Your task to perform on an android device: open the mobile data screen to see how much data has been used Image 0: 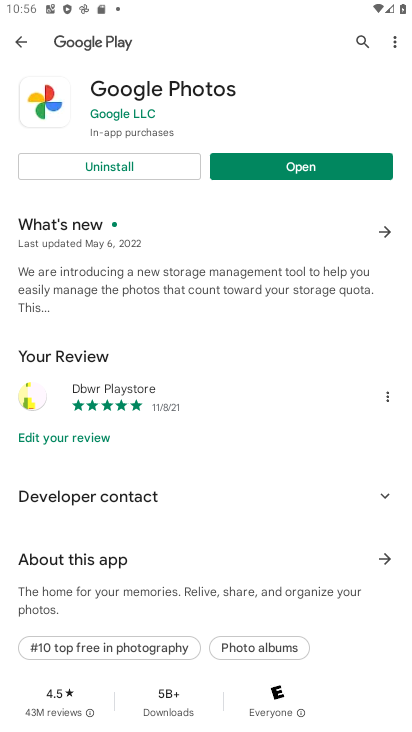
Step 0: press home button
Your task to perform on an android device: open the mobile data screen to see how much data has been used Image 1: 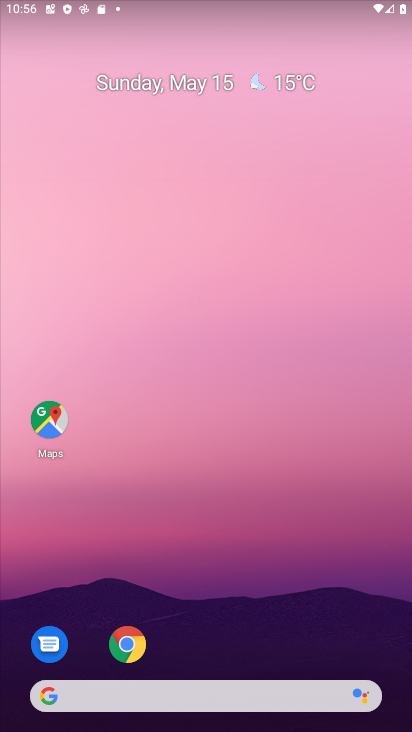
Step 1: drag from (189, 322) to (195, 288)
Your task to perform on an android device: open the mobile data screen to see how much data has been used Image 2: 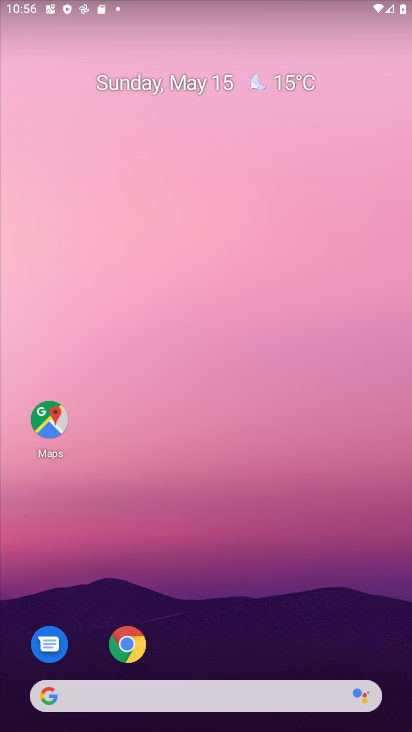
Step 2: drag from (268, 679) to (325, 241)
Your task to perform on an android device: open the mobile data screen to see how much data has been used Image 3: 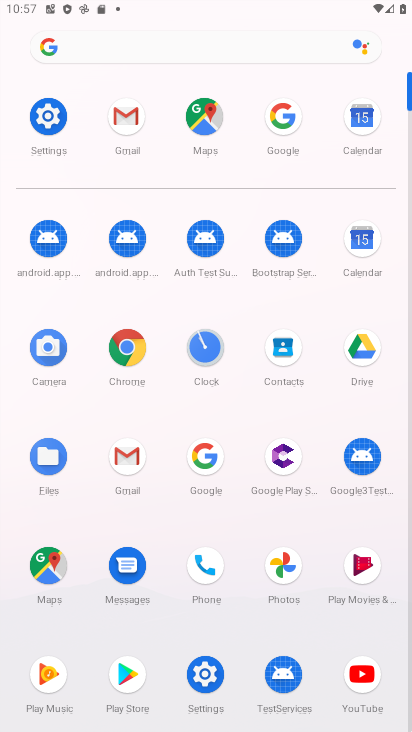
Step 3: click (201, 673)
Your task to perform on an android device: open the mobile data screen to see how much data has been used Image 4: 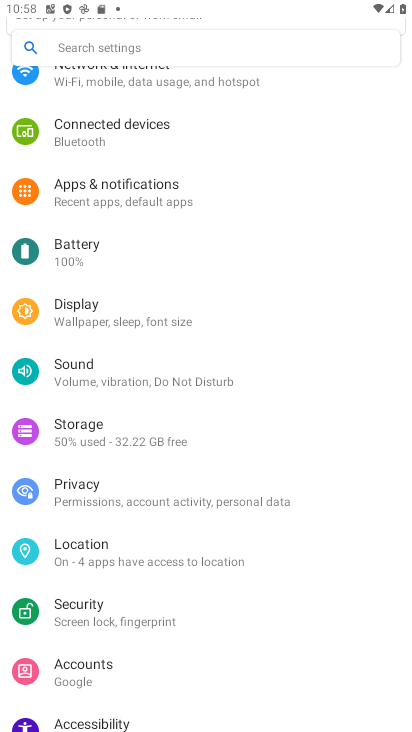
Step 4: drag from (137, 108) to (156, 332)
Your task to perform on an android device: open the mobile data screen to see how much data has been used Image 5: 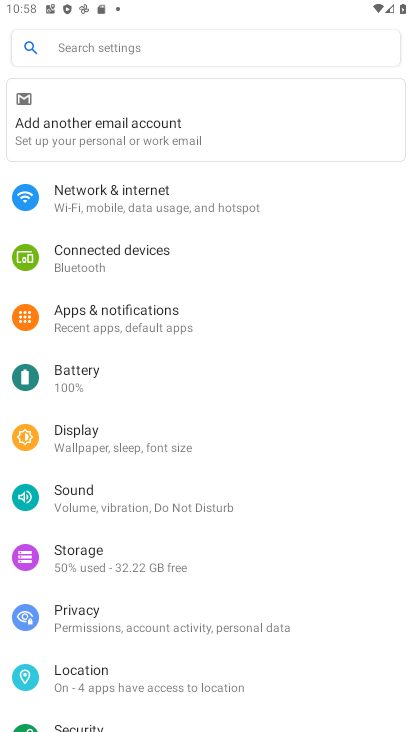
Step 5: click (123, 210)
Your task to perform on an android device: open the mobile data screen to see how much data has been used Image 6: 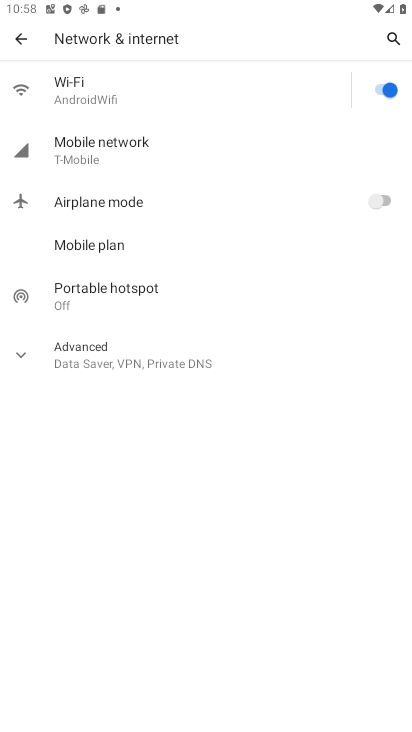
Step 6: click (99, 158)
Your task to perform on an android device: open the mobile data screen to see how much data has been used Image 7: 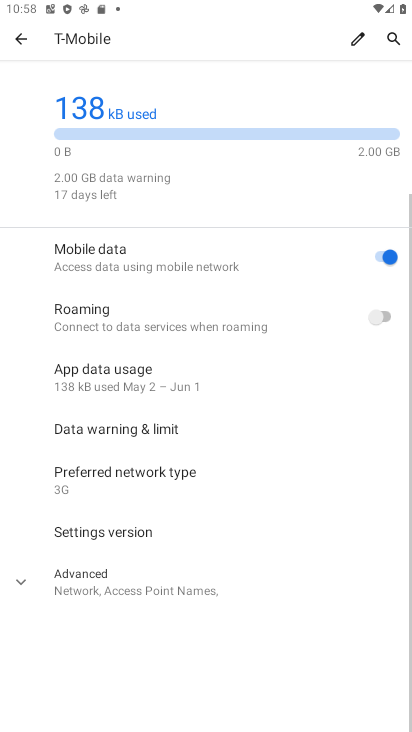
Step 7: task complete